Your task to perform on an android device: What is the news today? Image 0: 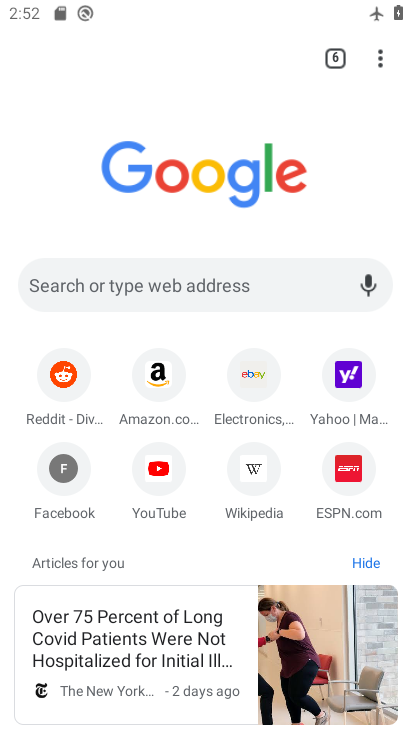
Step 0: press home button
Your task to perform on an android device: What is the news today? Image 1: 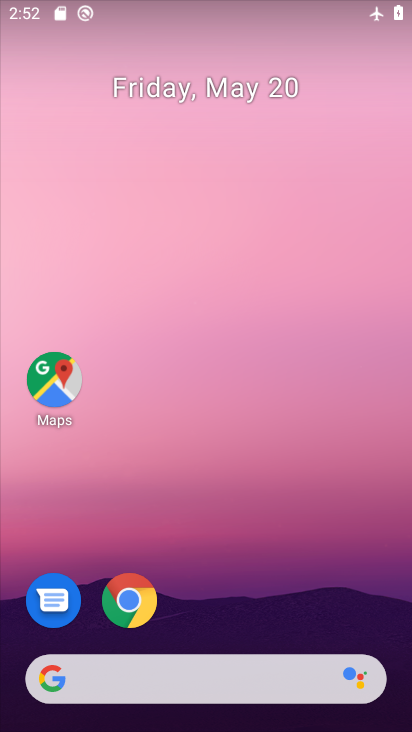
Step 1: drag from (274, 547) to (143, 64)
Your task to perform on an android device: What is the news today? Image 2: 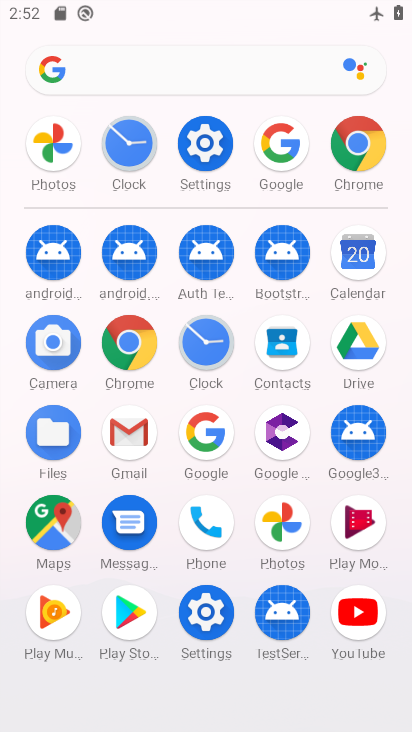
Step 2: click (212, 434)
Your task to perform on an android device: What is the news today? Image 3: 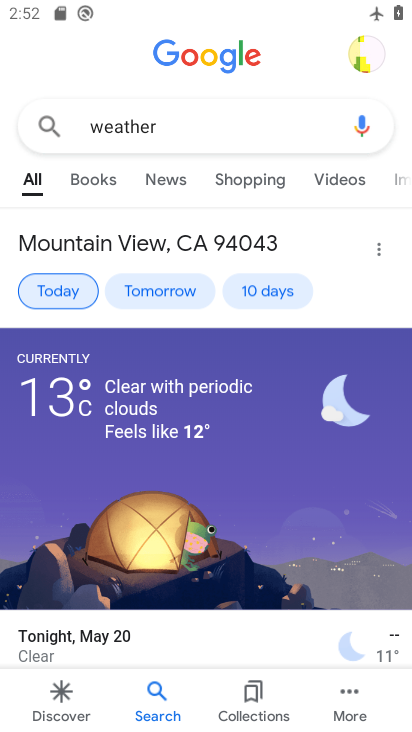
Step 3: click (223, 134)
Your task to perform on an android device: What is the news today? Image 4: 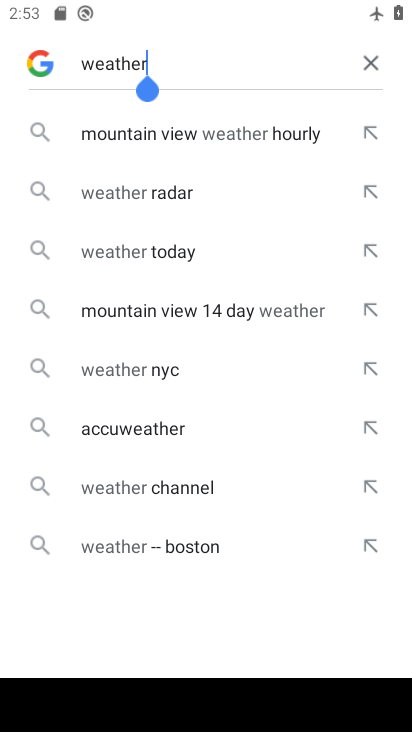
Step 4: click (368, 68)
Your task to perform on an android device: What is the news today? Image 5: 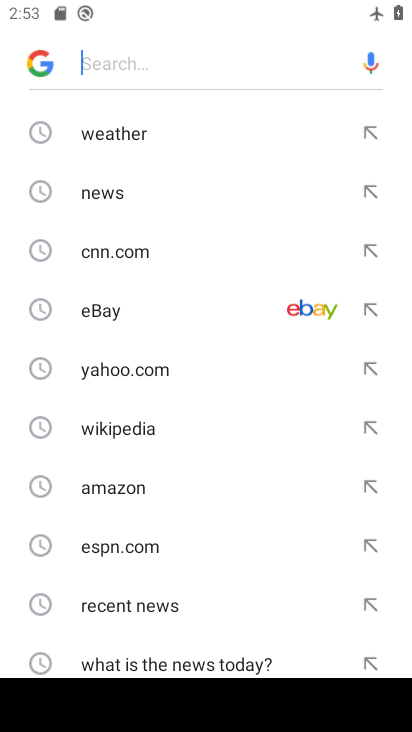
Step 5: click (236, 661)
Your task to perform on an android device: What is the news today? Image 6: 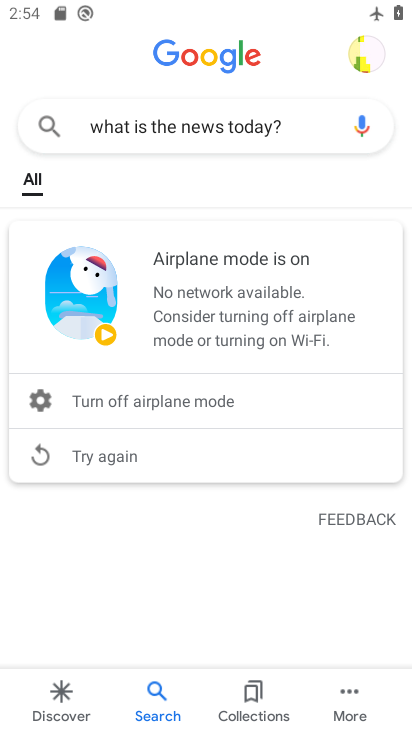
Step 6: task complete